Your task to perform on an android device: Search for sushi restaurants on Maps Image 0: 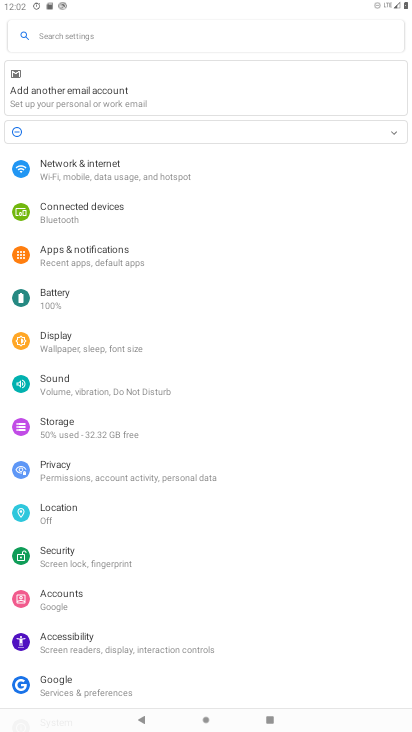
Step 0: press home button
Your task to perform on an android device: Search for sushi restaurants on Maps Image 1: 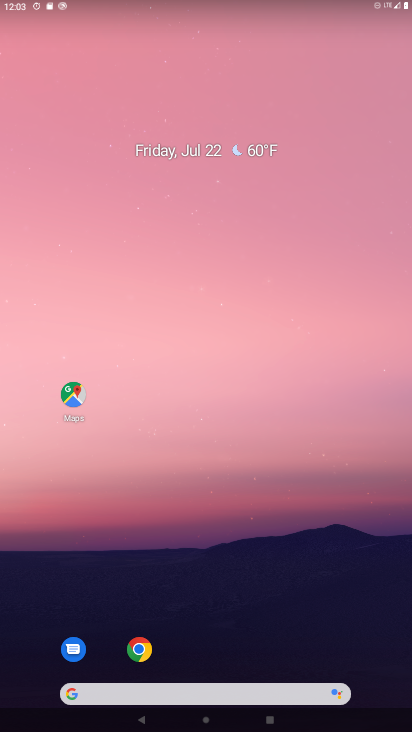
Step 1: click (70, 401)
Your task to perform on an android device: Search for sushi restaurants on Maps Image 2: 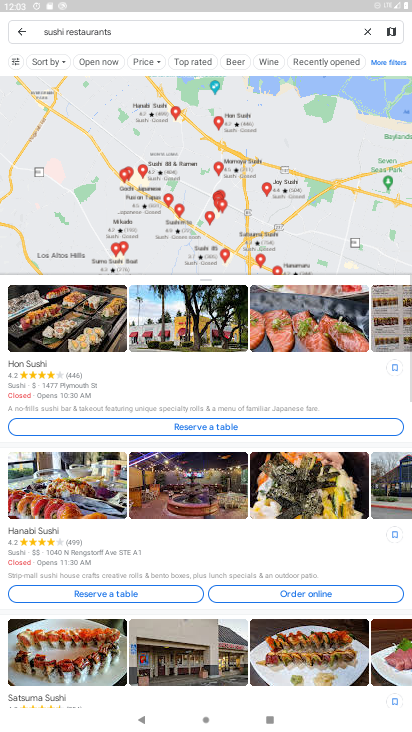
Step 2: click (369, 33)
Your task to perform on an android device: Search for sushi restaurants on Maps Image 3: 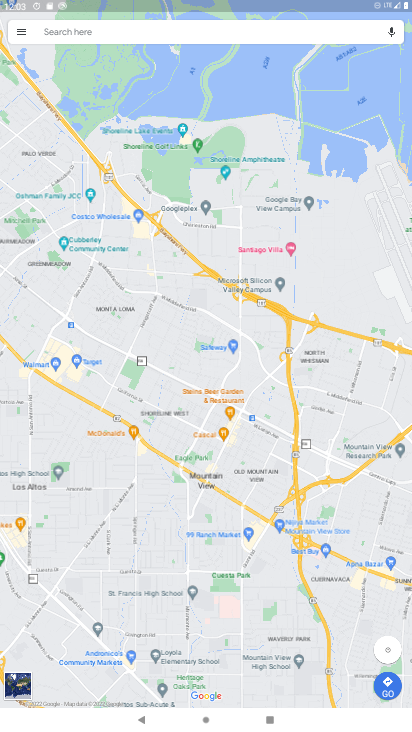
Step 3: type "shushi restaurants"
Your task to perform on an android device: Search for sushi restaurants on Maps Image 4: 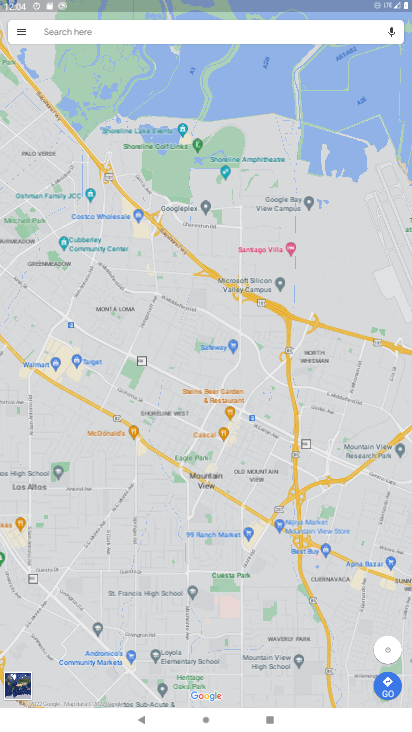
Step 4: click (188, 32)
Your task to perform on an android device: Search for sushi restaurants on Maps Image 5: 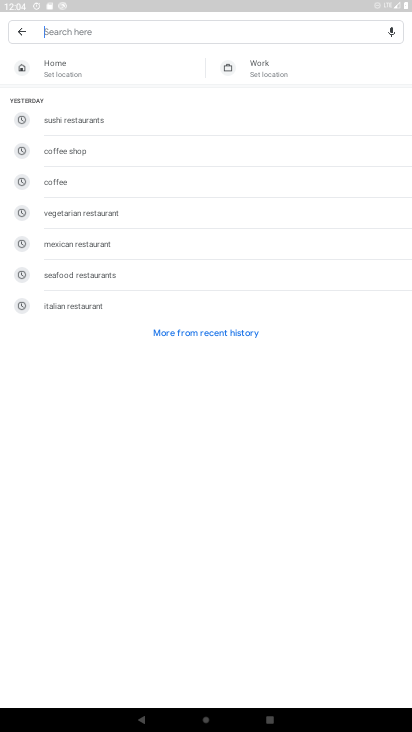
Step 5: click (79, 114)
Your task to perform on an android device: Search for sushi restaurants on Maps Image 6: 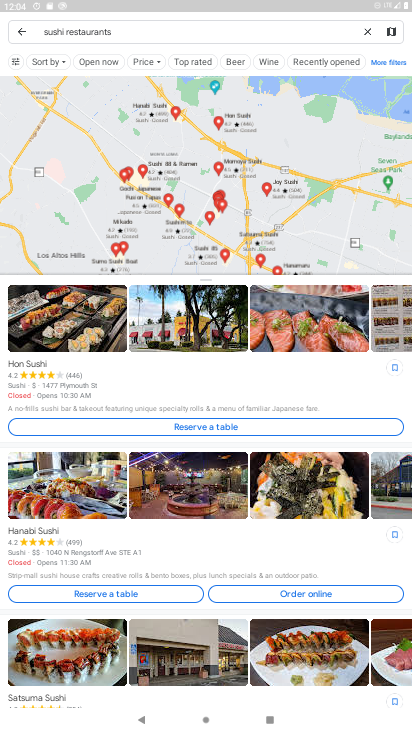
Step 6: task complete